Your task to perform on an android device: empty trash in google photos Image 0: 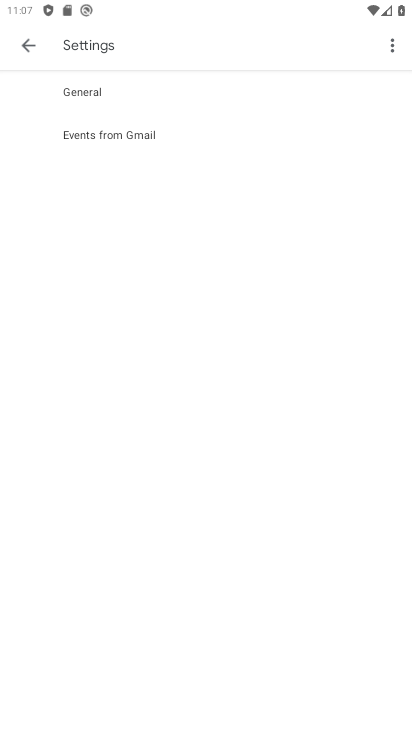
Step 0: press home button
Your task to perform on an android device: empty trash in google photos Image 1: 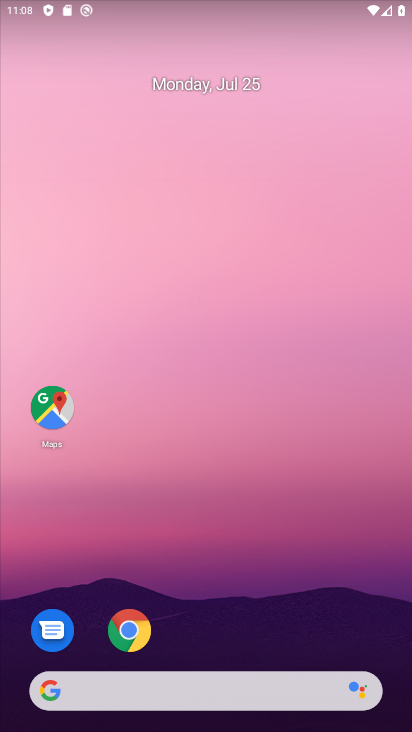
Step 1: drag from (251, 618) to (244, 64)
Your task to perform on an android device: empty trash in google photos Image 2: 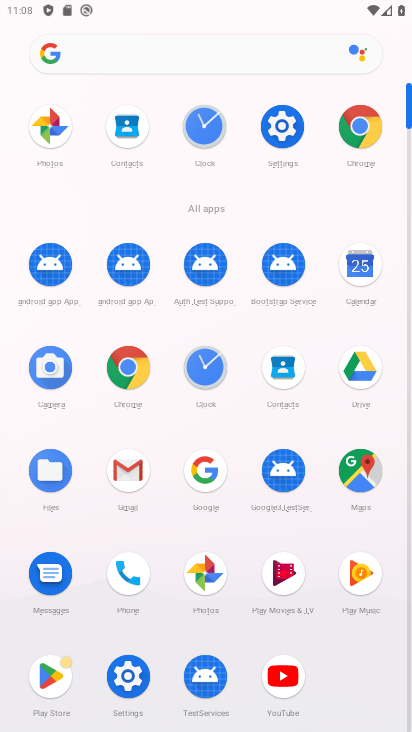
Step 2: click (201, 564)
Your task to perform on an android device: empty trash in google photos Image 3: 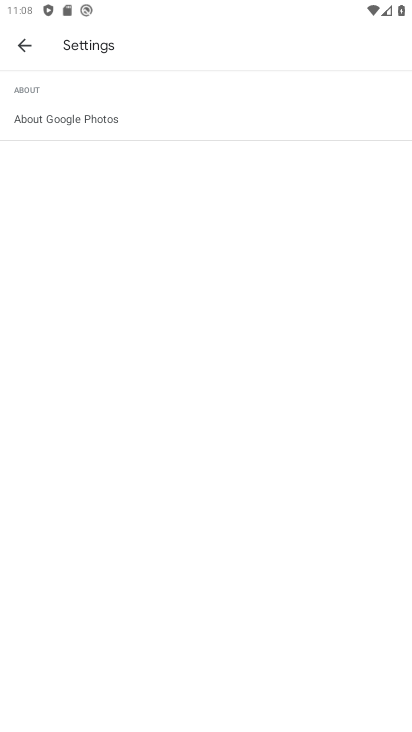
Step 3: click (22, 47)
Your task to perform on an android device: empty trash in google photos Image 4: 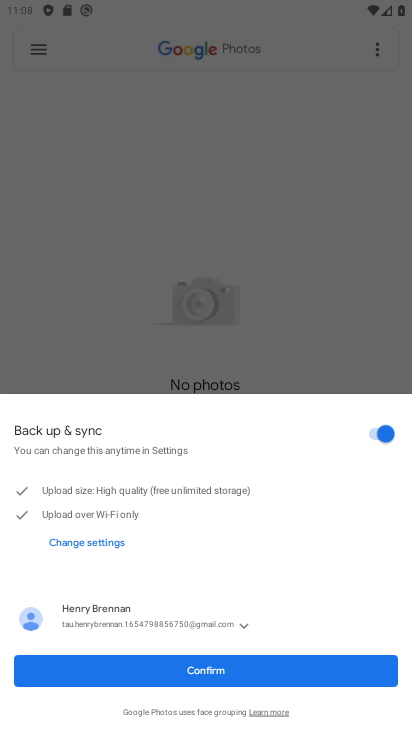
Step 4: click (141, 676)
Your task to perform on an android device: empty trash in google photos Image 5: 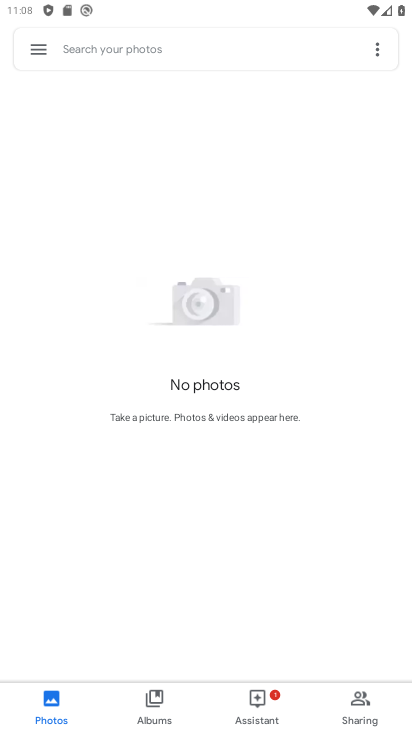
Step 5: click (33, 48)
Your task to perform on an android device: empty trash in google photos Image 6: 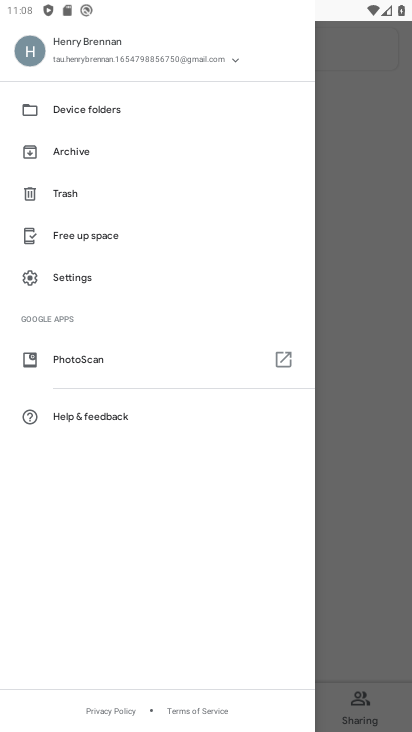
Step 6: click (67, 184)
Your task to perform on an android device: empty trash in google photos Image 7: 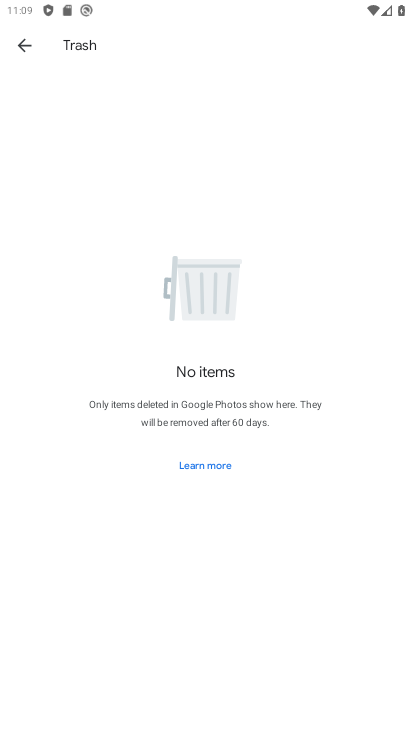
Step 7: task complete